Your task to perform on an android device: toggle show notifications on the lock screen Image 0: 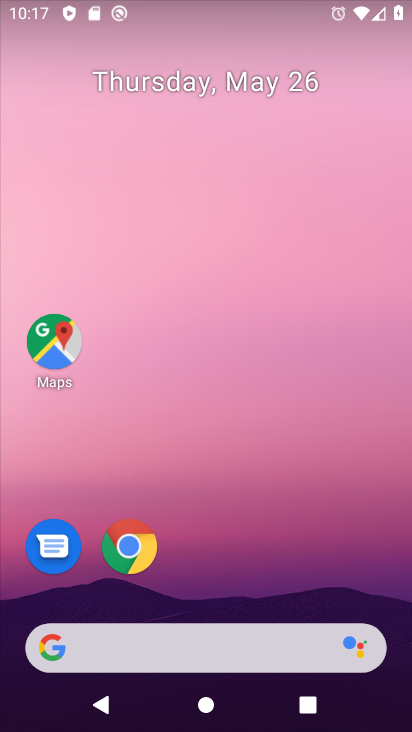
Step 0: drag from (277, 563) to (212, 124)
Your task to perform on an android device: toggle show notifications on the lock screen Image 1: 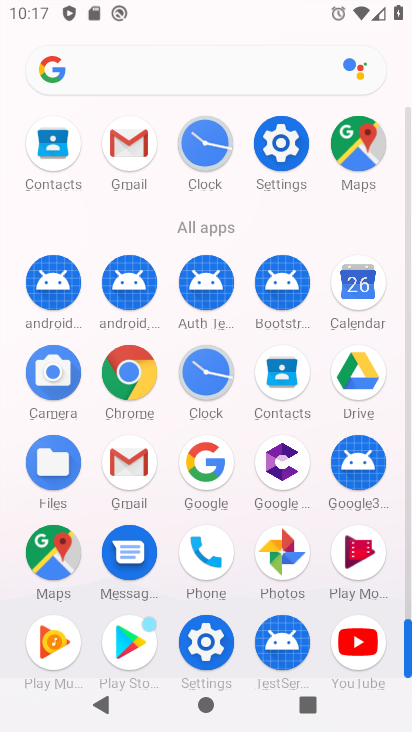
Step 1: click (282, 142)
Your task to perform on an android device: toggle show notifications on the lock screen Image 2: 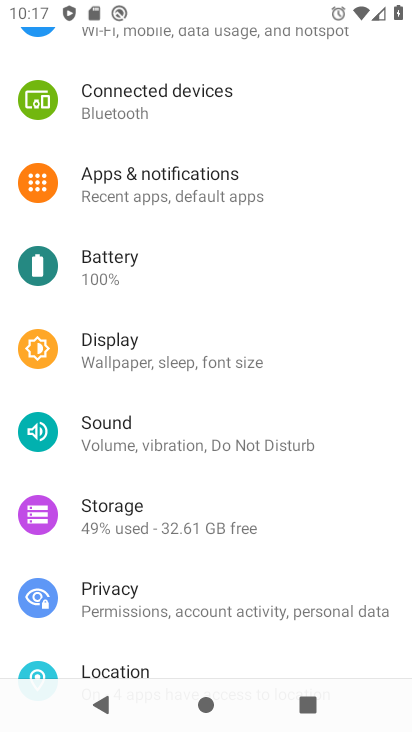
Step 2: click (159, 212)
Your task to perform on an android device: toggle show notifications on the lock screen Image 3: 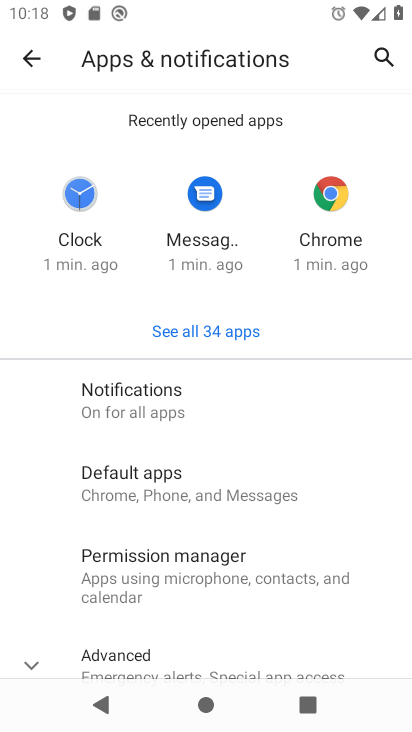
Step 3: click (125, 404)
Your task to perform on an android device: toggle show notifications on the lock screen Image 4: 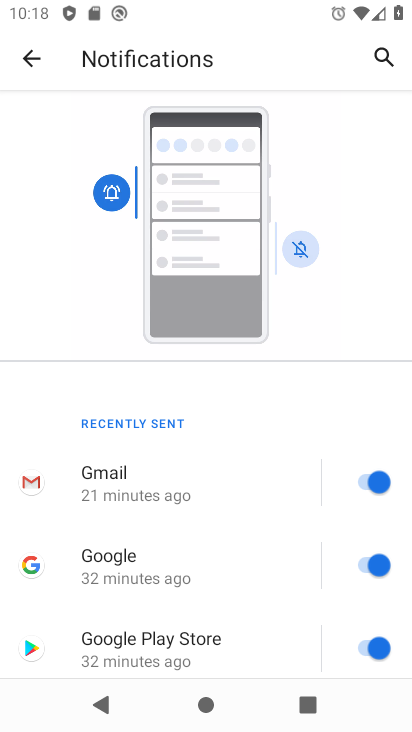
Step 4: drag from (174, 539) to (271, 381)
Your task to perform on an android device: toggle show notifications on the lock screen Image 5: 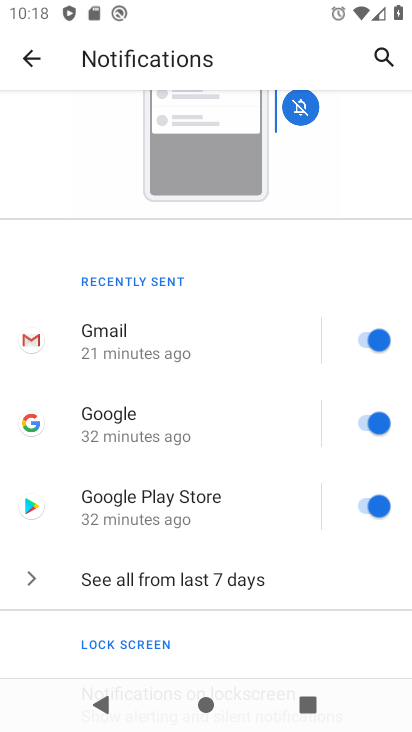
Step 5: drag from (164, 555) to (263, 366)
Your task to perform on an android device: toggle show notifications on the lock screen Image 6: 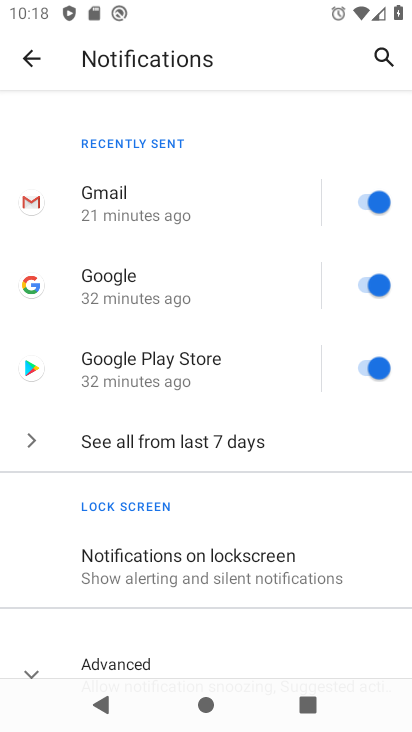
Step 6: click (204, 572)
Your task to perform on an android device: toggle show notifications on the lock screen Image 7: 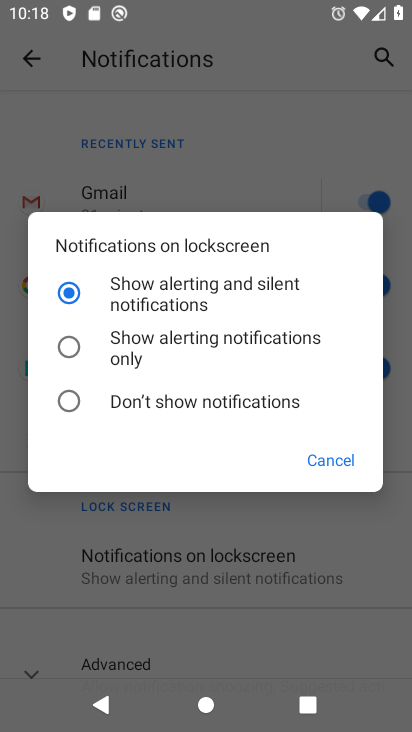
Step 7: click (72, 396)
Your task to perform on an android device: toggle show notifications on the lock screen Image 8: 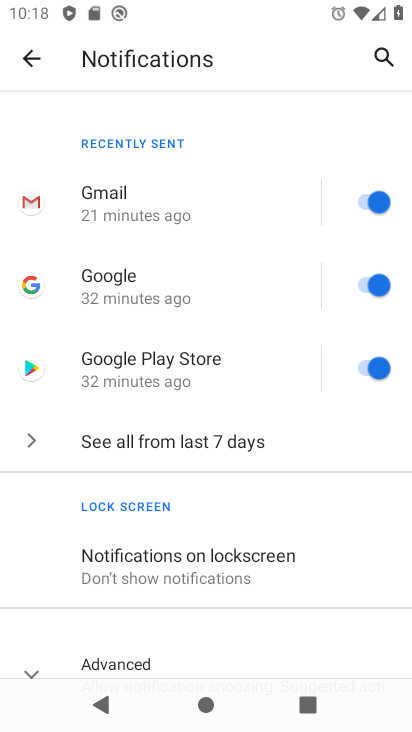
Step 8: task complete